Your task to perform on an android device: What is the recent news? Image 0: 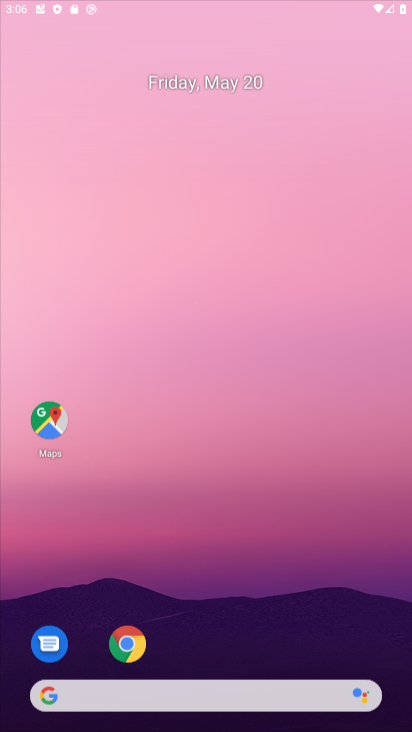
Step 0: click (141, 641)
Your task to perform on an android device: What is the recent news? Image 1: 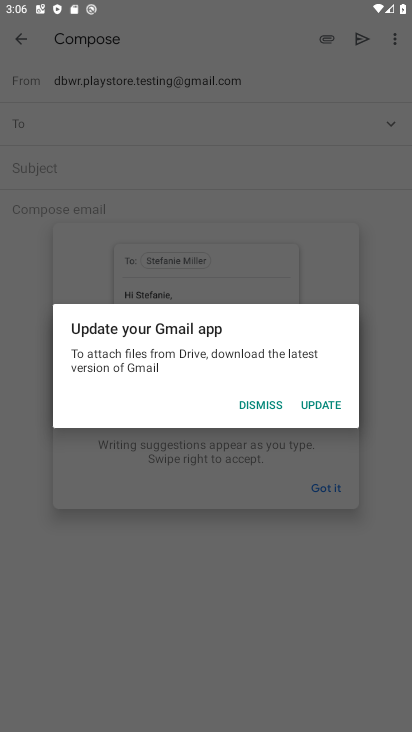
Step 1: click (324, 476)
Your task to perform on an android device: What is the recent news? Image 2: 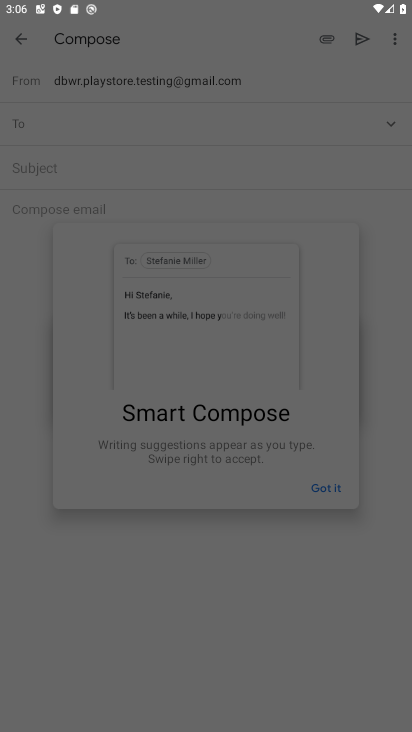
Step 2: press home button
Your task to perform on an android device: What is the recent news? Image 3: 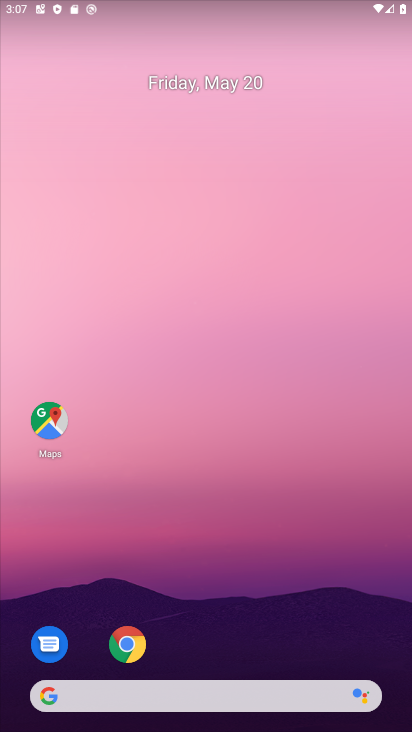
Step 3: click (223, 702)
Your task to perform on an android device: What is the recent news? Image 4: 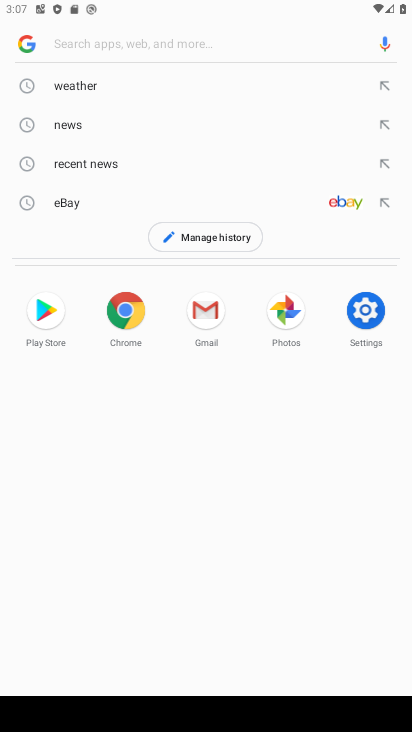
Step 4: click (163, 154)
Your task to perform on an android device: What is the recent news? Image 5: 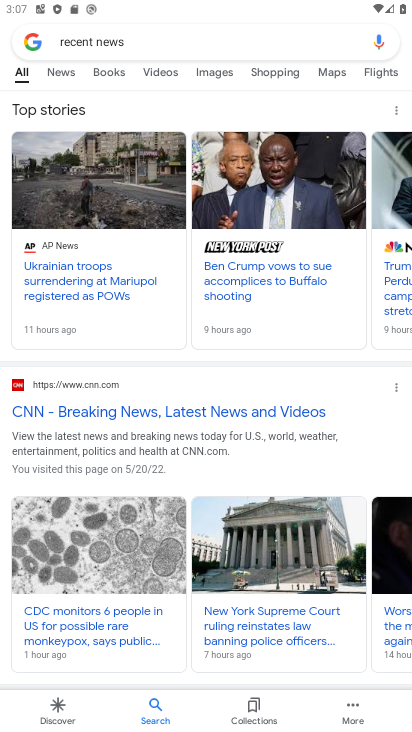
Step 5: task complete